Your task to perform on an android device: open chrome privacy settings Image 0: 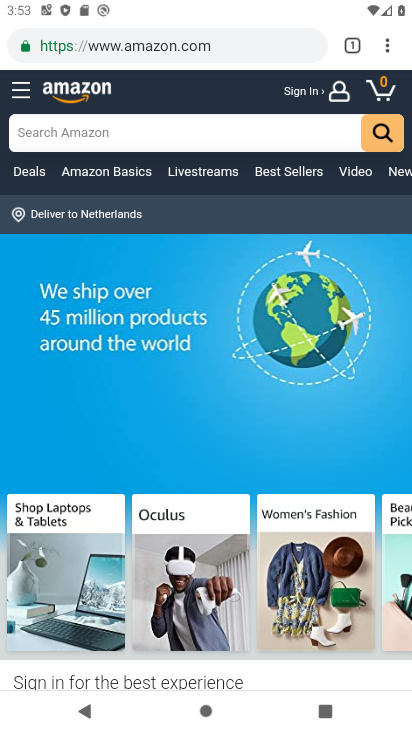
Step 0: press home button
Your task to perform on an android device: open chrome privacy settings Image 1: 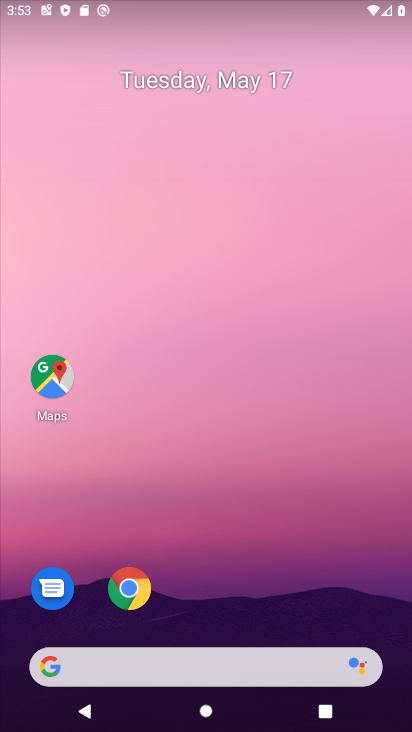
Step 1: click (128, 586)
Your task to perform on an android device: open chrome privacy settings Image 2: 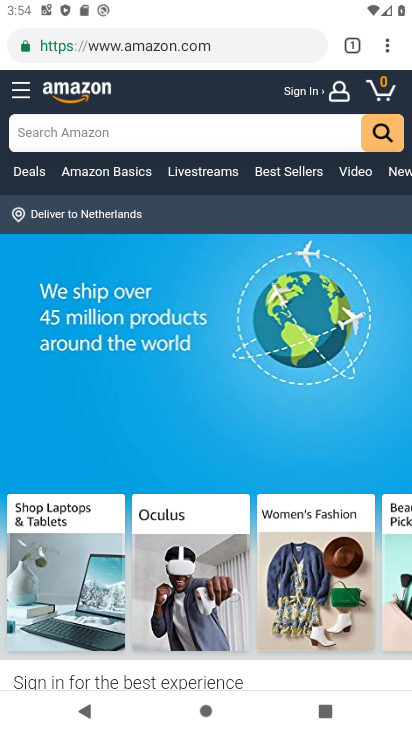
Step 2: click (389, 44)
Your task to perform on an android device: open chrome privacy settings Image 3: 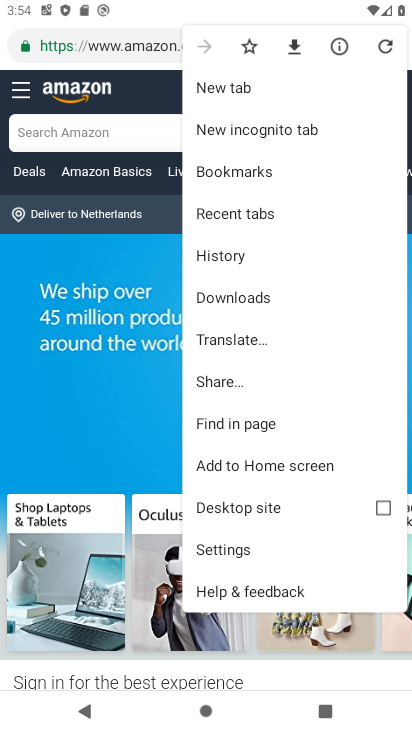
Step 3: click (218, 548)
Your task to perform on an android device: open chrome privacy settings Image 4: 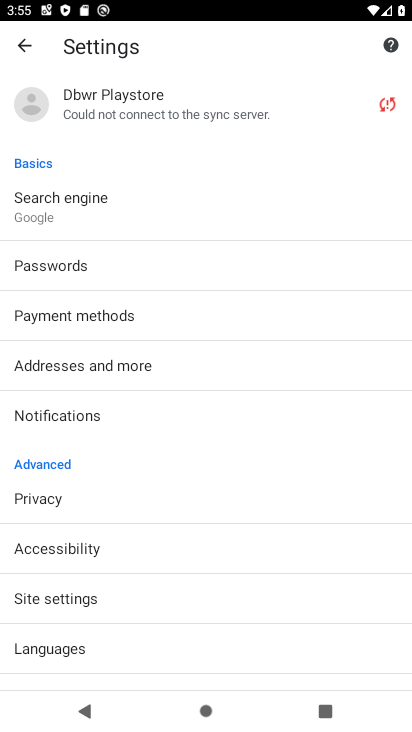
Step 4: click (52, 491)
Your task to perform on an android device: open chrome privacy settings Image 5: 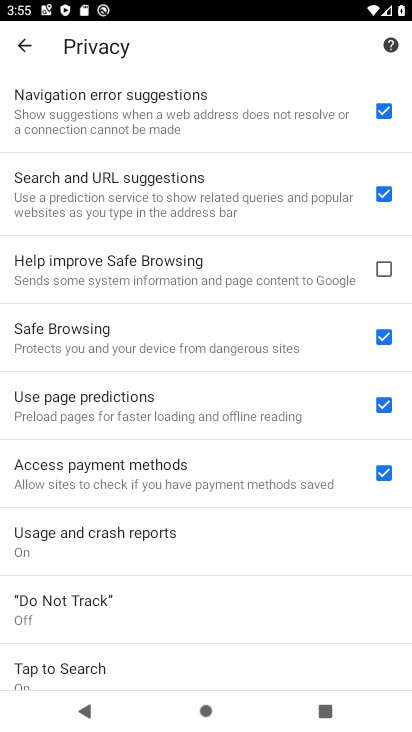
Step 5: task complete